Your task to perform on an android device: toggle data saver in the chrome app Image 0: 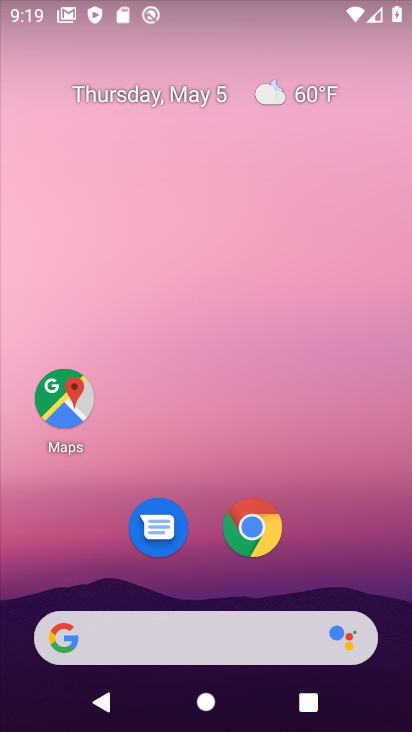
Step 0: click (258, 530)
Your task to perform on an android device: toggle data saver in the chrome app Image 1: 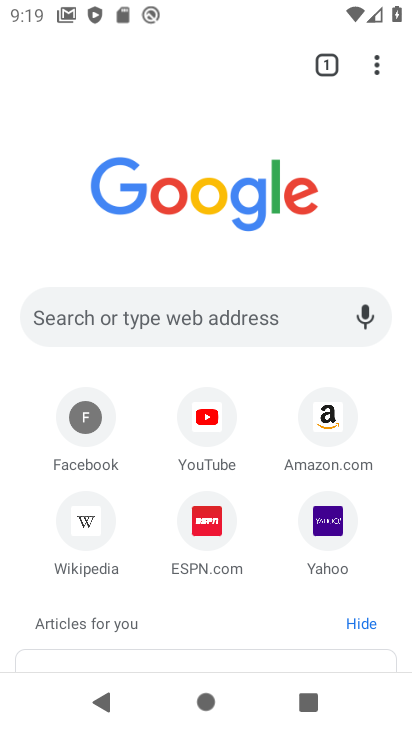
Step 1: drag from (382, 75) to (295, 553)
Your task to perform on an android device: toggle data saver in the chrome app Image 2: 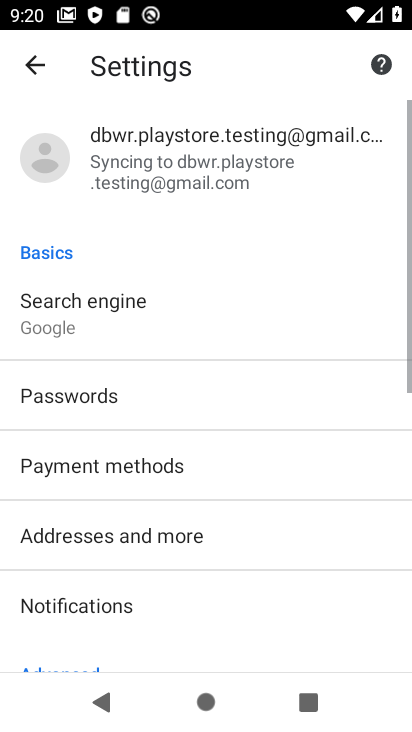
Step 2: drag from (145, 605) to (254, 142)
Your task to perform on an android device: toggle data saver in the chrome app Image 3: 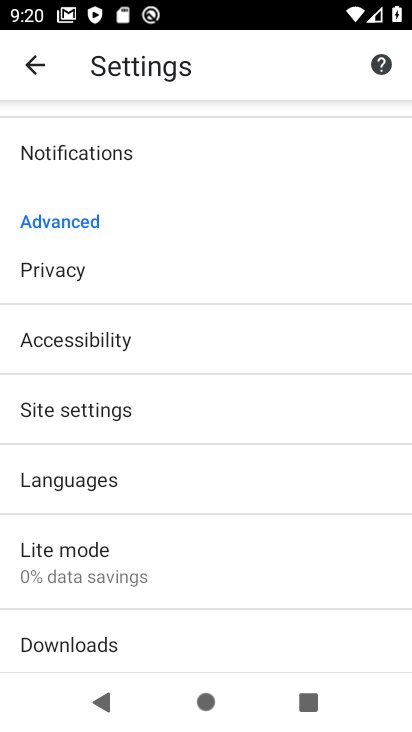
Step 3: drag from (91, 529) to (154, 252)
Your task to perform on an android device: toggle data saver in the chrome app Image 4: 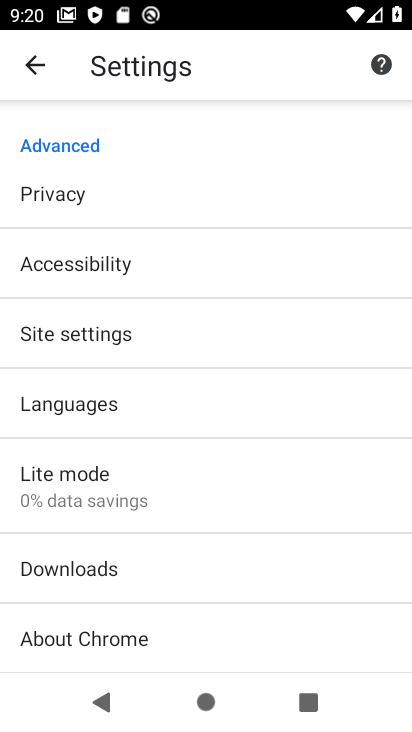
Step 4: click (133, 493)
Your task to perform on an android device: toggle data saver in the chrome app Image 5: 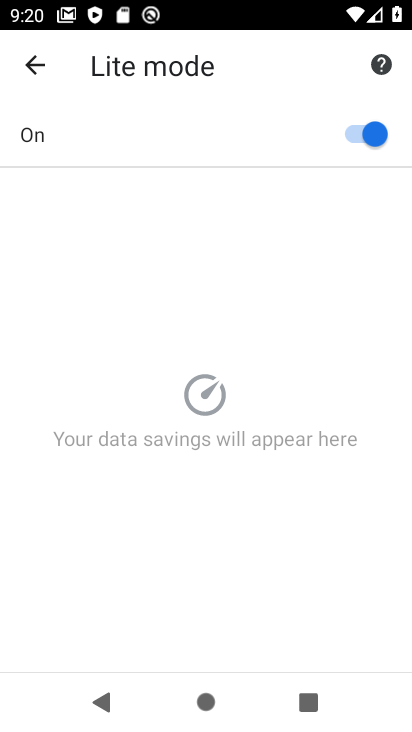
Step 5: click (353, 123)
Your task to perform on an android device: toggle data saver in the chrome app Image 6: 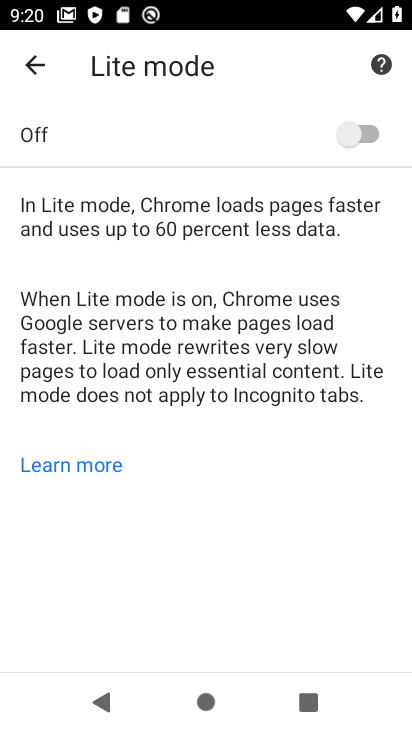
Step 6: task complete